Your task to perform on an android device: turn off translation in the chrome app Image 0: 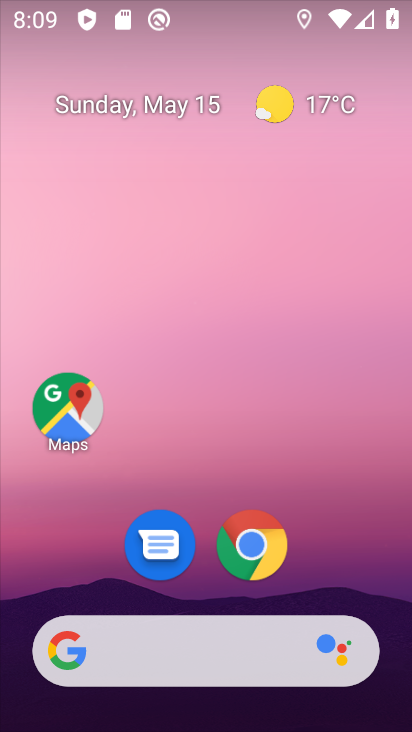
Step 0: click (242, 546)
Your task to perform on an android device: turn off translation in the chrome app Image 1: 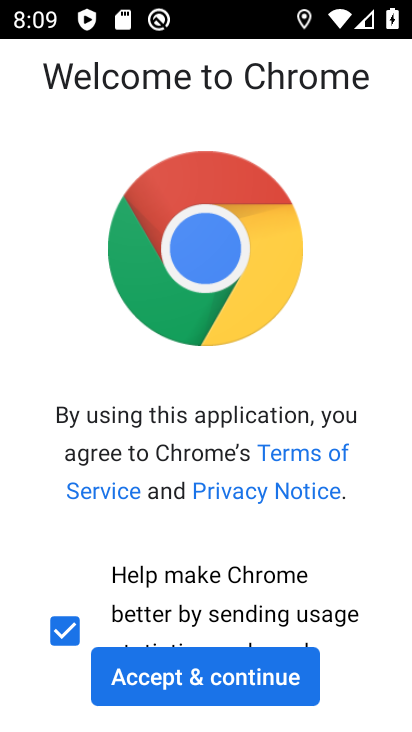
Step 1: click (174, 685)
Your task to perform on an android device: turn off translation in the chrome app Image 2: 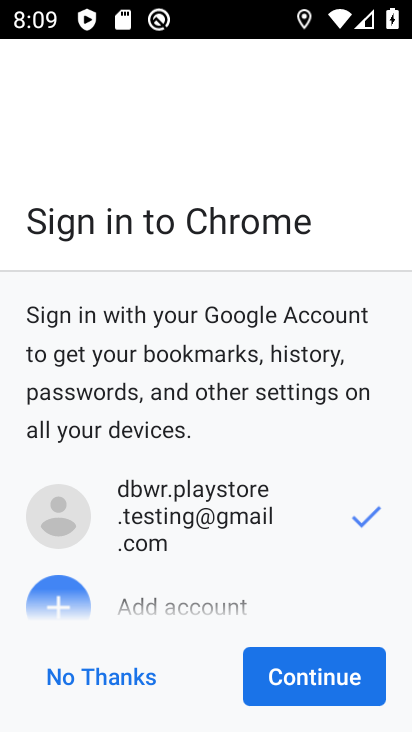
Step 2: click (320, 679)
Your task to perform on an android device: turn off translation in the chrome app Image 3: 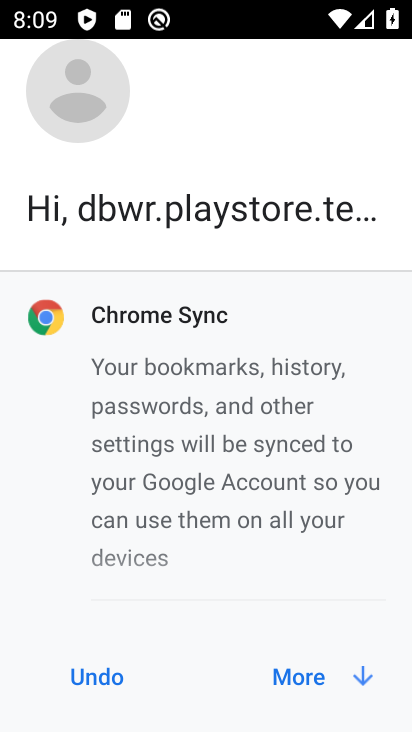
Step 3: click (302, 685)
Your task to perform on an android device: turn off translation in the chrome app Image 4: 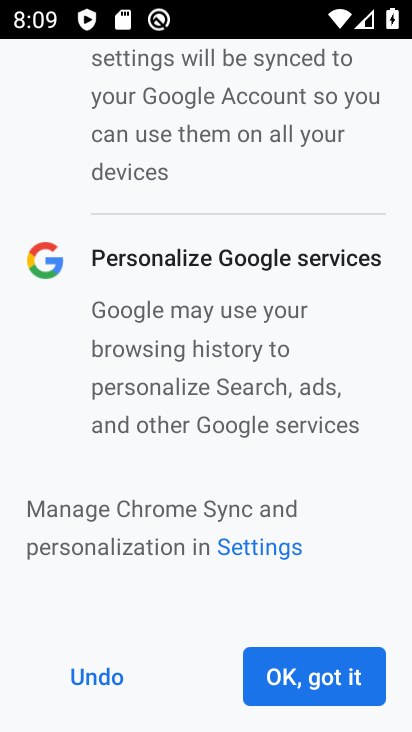
Step 4: click (302, 685)
Your task to perform on an android device: turn off translation in the chrome app Image 5: 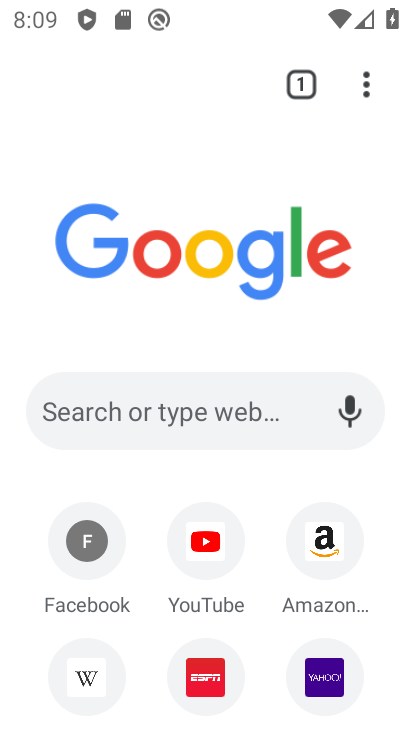
Step 5: click (362, 91)
Your task to perform on an android device: turn off translation in the chrome app Image 6: 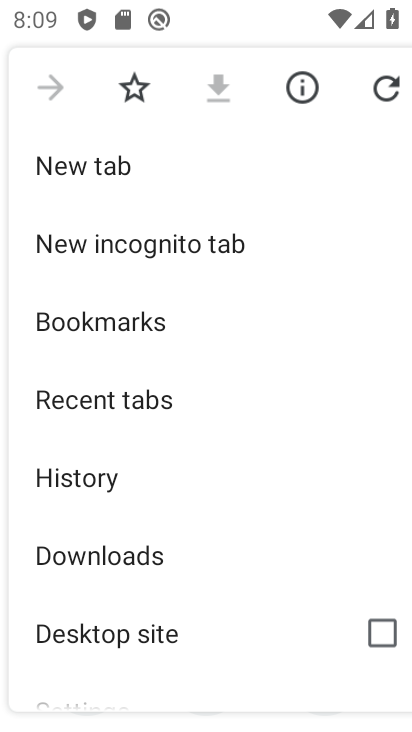
Step 6: drag from (132, 613) to (132, 308)
Your task to perform on an android device: turn off translation in the chrome app Image 7: 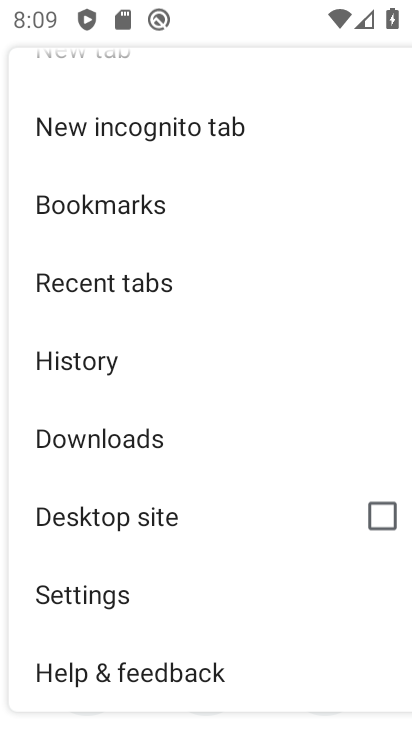
Step 7: click (89, 607)
Your task to perform on an android device: turn off translation in the chrome app Image 8: 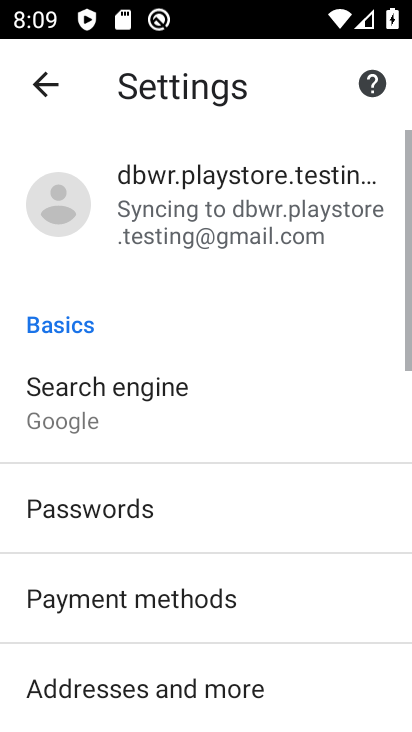
Step 8: drag from (168, 461) to (174, 396)
Your task to perform on an android device: turn off translation in the chrome app Image 9: 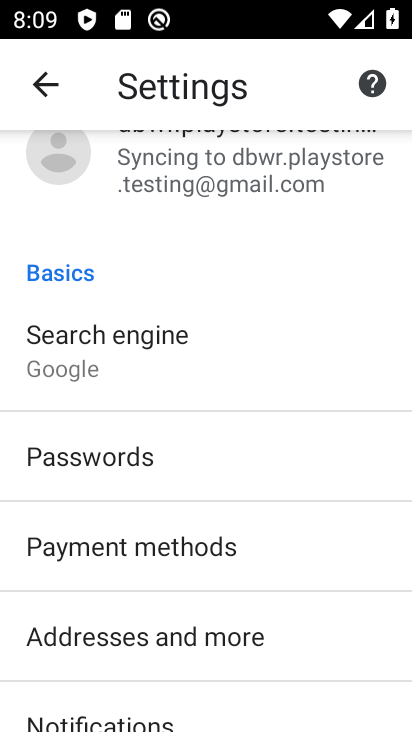
Step 9: drag from (194, 687) to (210, 473)
Your task to perform on an android device: turn off translation in the chrome app Image 10: 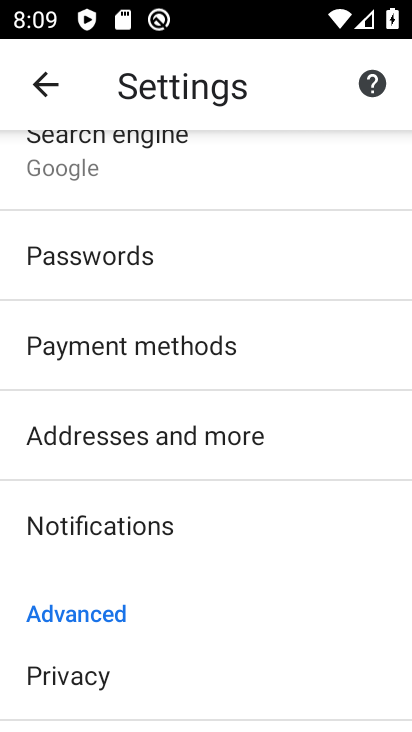
Step 10: drag from (192, 631) to (209, 291)
Your task to perform on an android device: turn off translation in the chrome app Image 11: 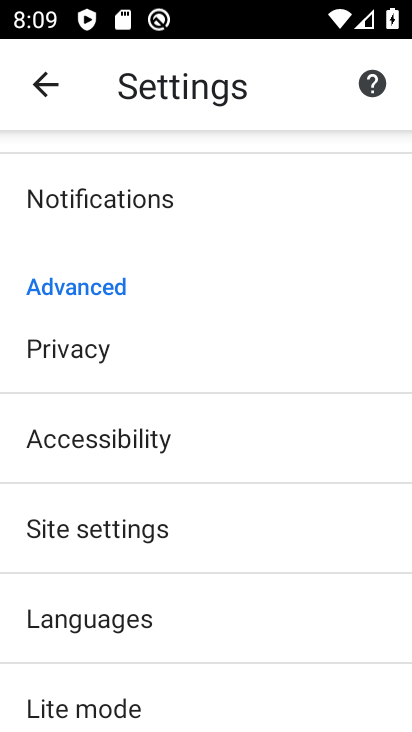
Step 11: click (111, 624)
Your task to perform on an android device: turn off translation in the chrome app Image 12: 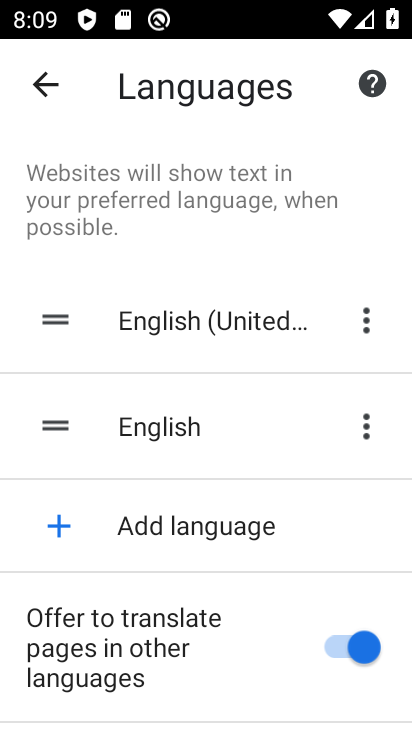
Step 12: click (330, 658)
Your task to perform on an android device: turn off translation in the chrome app Image 13: 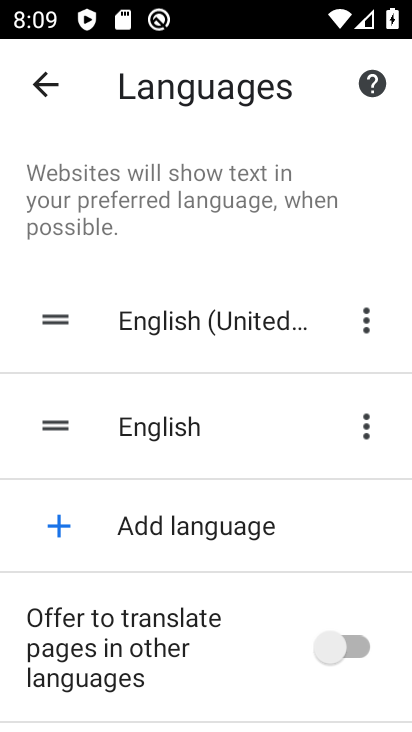
Step 13: task complete